Your task to perform on an android device: move an email to a new category in the gmail app Image 0: 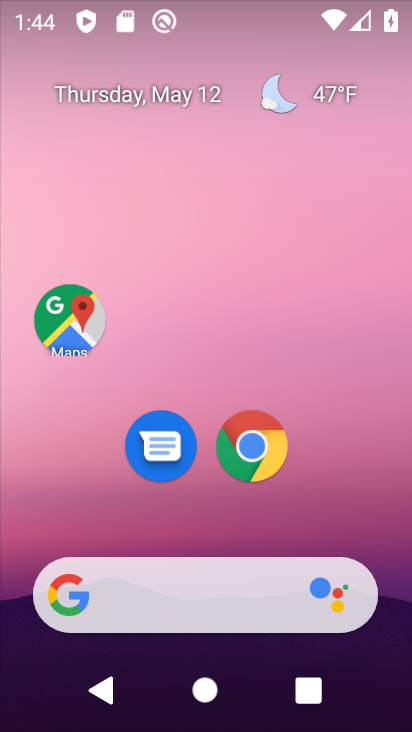
Step 0: drag from (219, 548) to (197, 0)
Your task to perform on an android device: move an email to a new category in the gmail app Image 1: 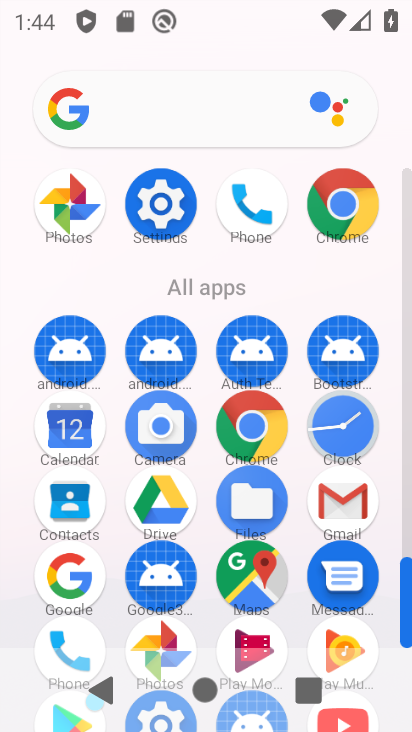
Step 1: click (341, 491)
Your task to perform on an android device: move an email to a new category in the gmail app Image 2: 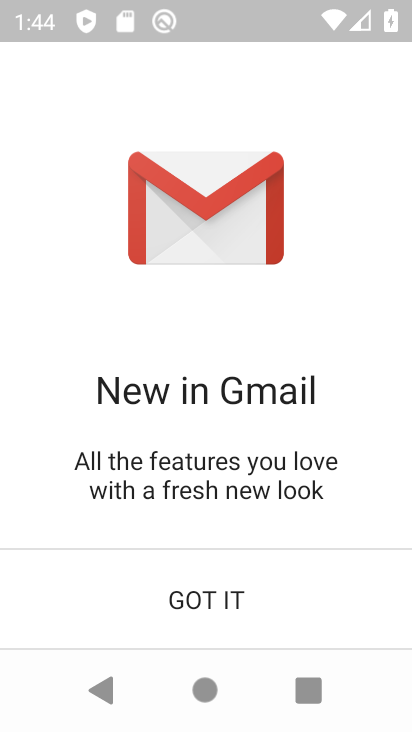
Step 2: click (297, 568)
Your task to perform on an android device: move an email to a new category in the gmail app Image 3: 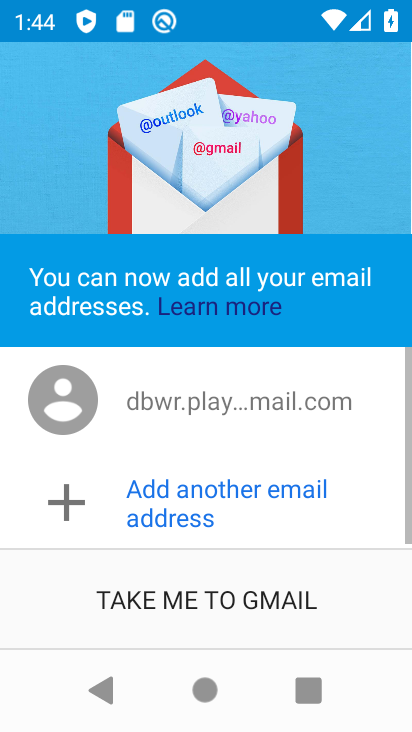
Step 3: click (290, 602)
Your task to perform on an android device: move an email to a new category in the gmail app Image 4: 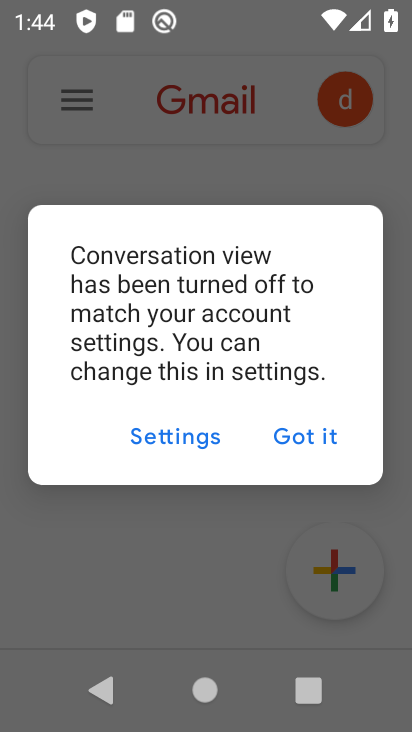
Step 4: click (323, 450)
Your task to perform on an android device: move an email to a new category in the gmail app Image 5: 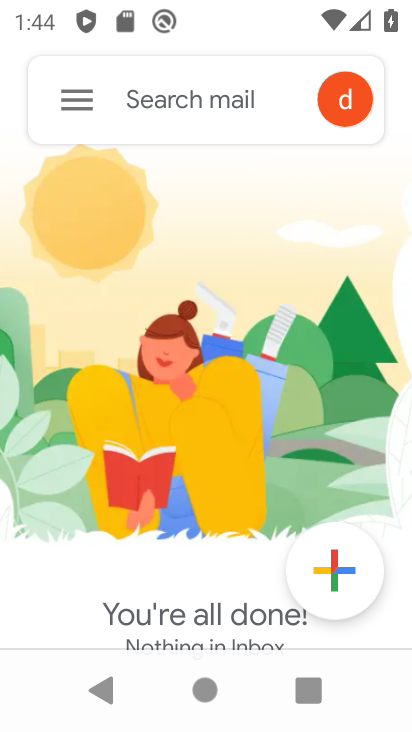
Step 5: click (77, 109)
Your task to perform on an android device: move an email to a new category in the gmail app Image 6: 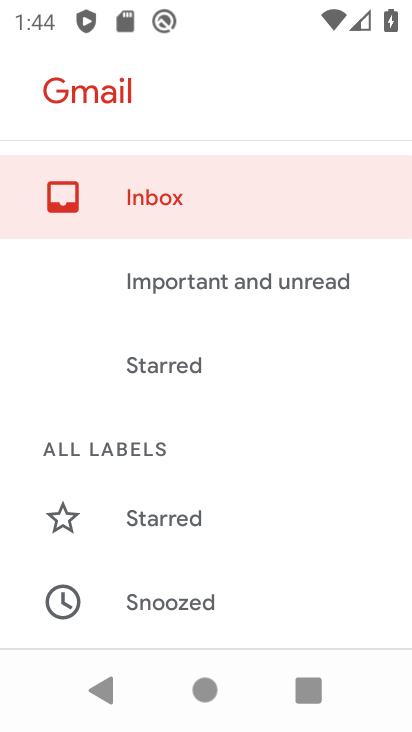
Step 6: task complete